Your task to perform on an android device: check storage Image 0: 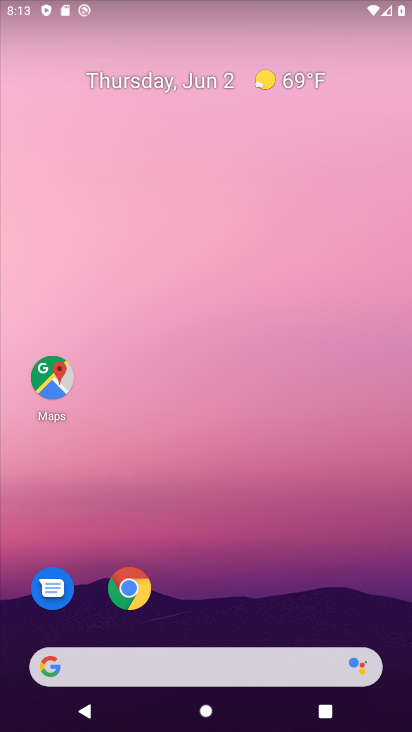
Step 0: drag from (226, 712) to (177, 0)
Your task to perform on an android device: check storage Image 1: 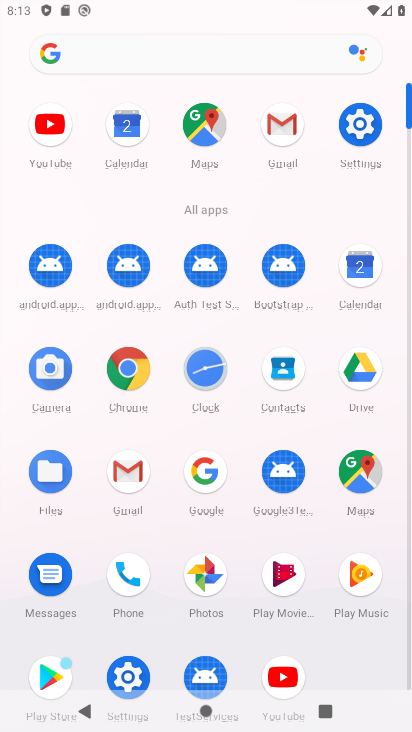
Step 1: click (353, 116)
Your task to perform on an android device: check storage Image 2: 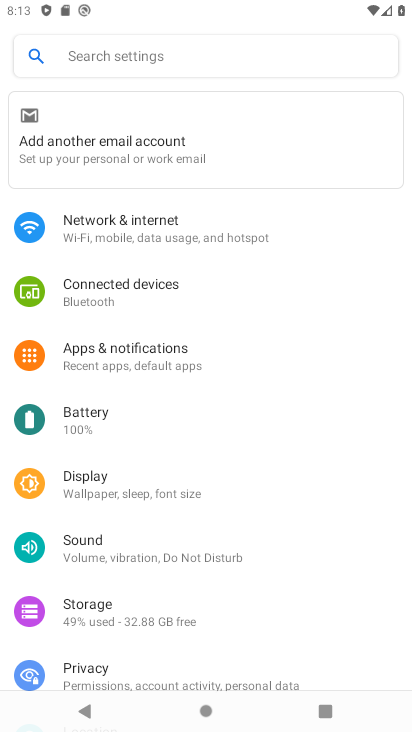
Step 2: click (90, 612)
Your task to perform on an android device: check storage Image 3: 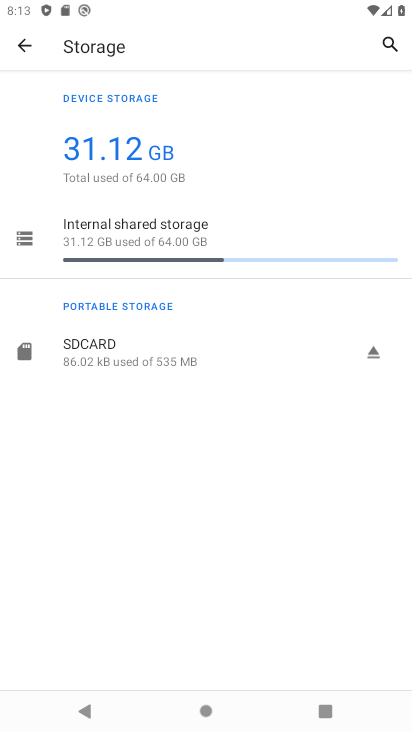
Step 3: task complete